Your task to perform on an android device: change timer sound Image 0: 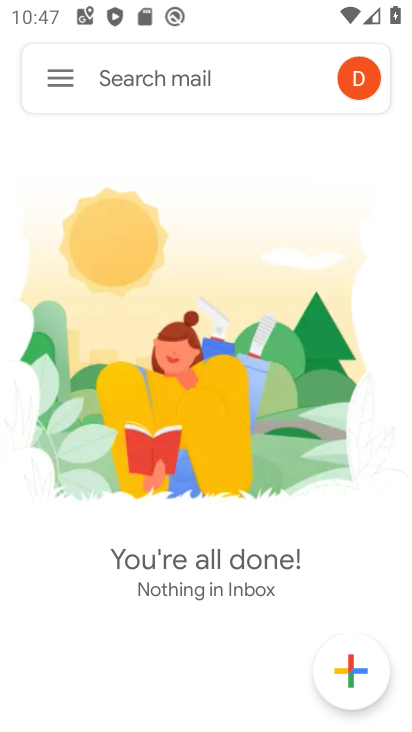
Step 0: press back button
Your task to perform on an android device: change timer sound Image 1: 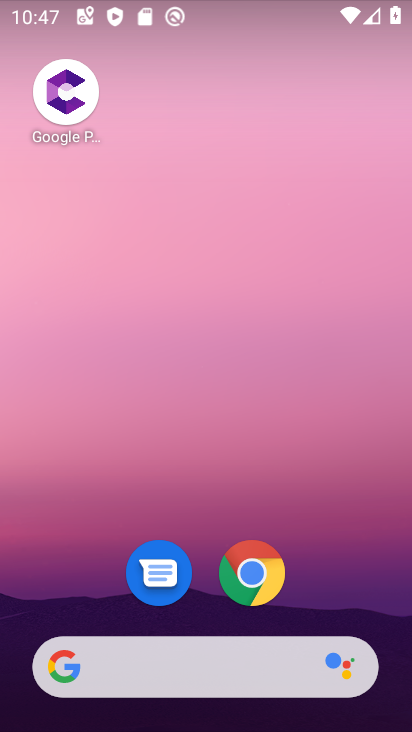
Step 1: drag from (203, 613) to (317, 12)
Your task to perform on an android device: change timer sound Image 2: 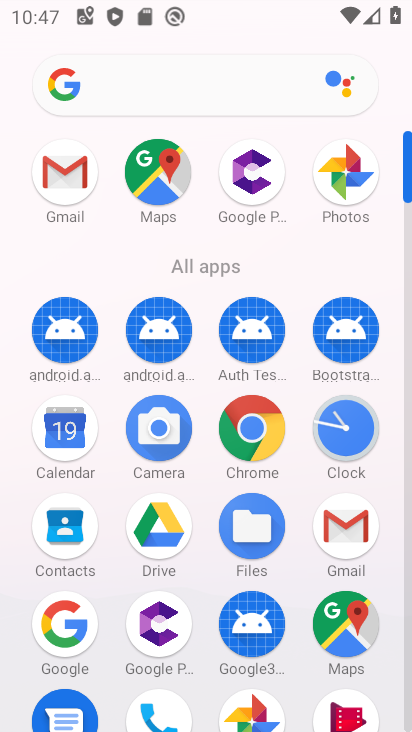
Step 2: click (353, 438)
Your task to perform on an android device: change timer sound Image 3: 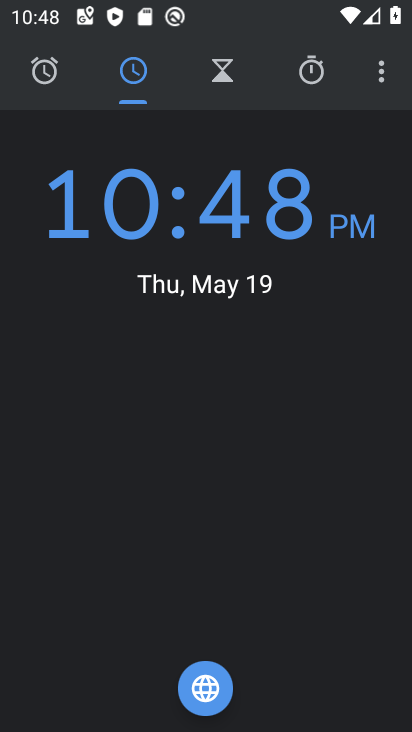
Step 3: click (375, 68)
Your task to perform on an android device: change timer sound Image 4: 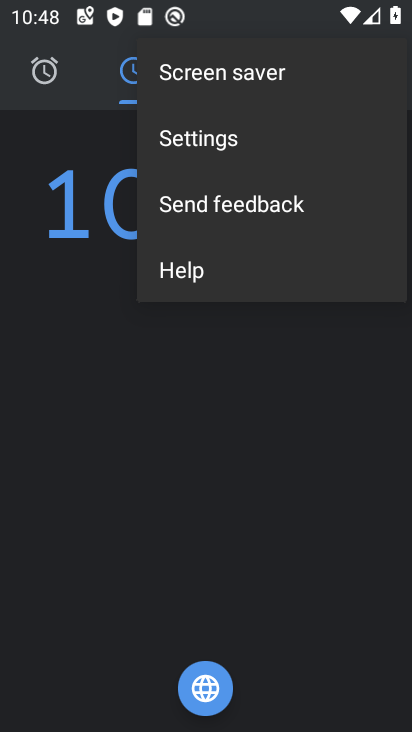
Step 4: click (226, 142)
Your task to perform on an android device: change timer sound Image 5: 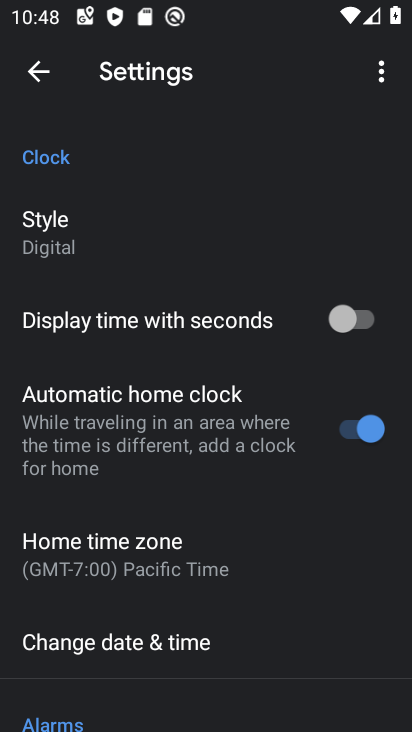
Step 5: drag from (121, 660) to (250, 169)
Your task to perform on an android device: change timer sound Image 6: 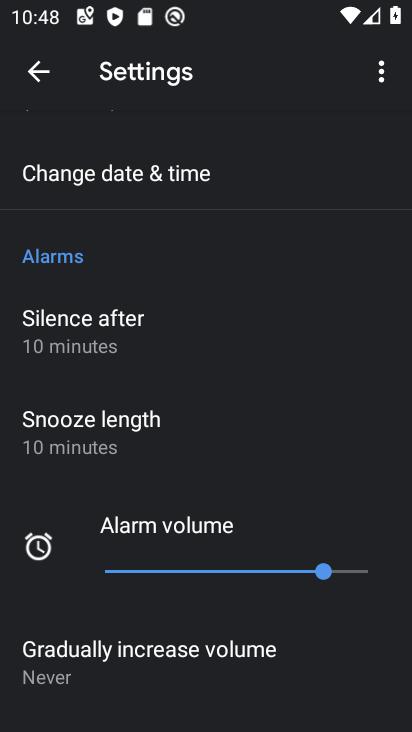
Step 6: drag from (125, 652) to (246, 72)
Your task to perform on an android device: change timer sound Image 7: 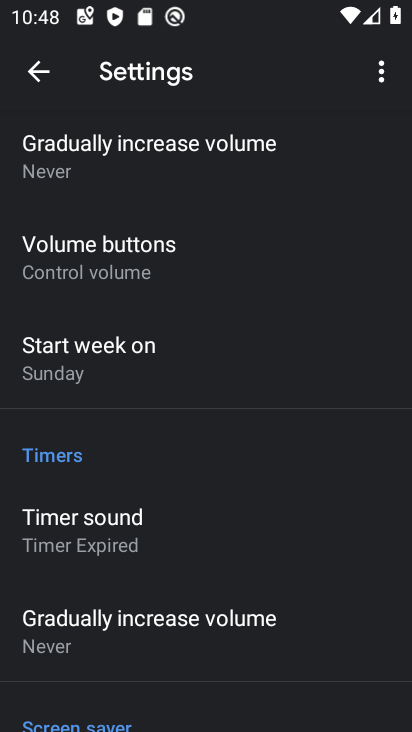
Step 7: click (104, 533)
Your task to perform on an android device: change timer sound Image 8: 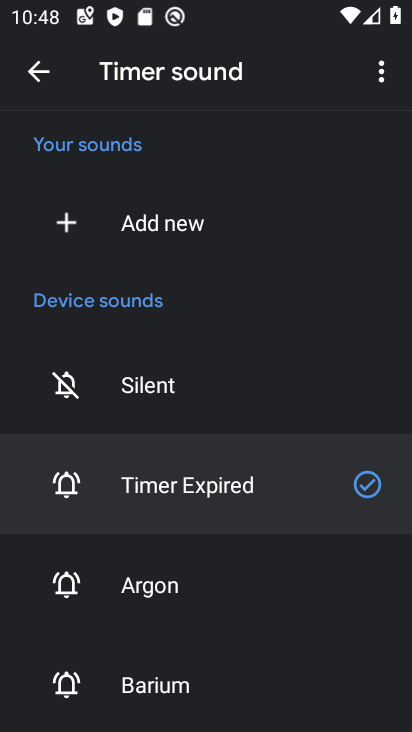
Step 8: click (176, 578)
Your task to perform on an android device: change timer sound Image 9: 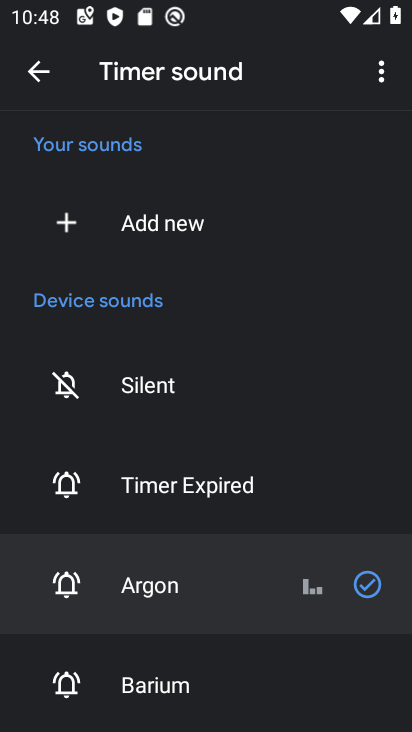
Step 9: task complete